Your task to perform on an android device: Open my contact list Image 0: 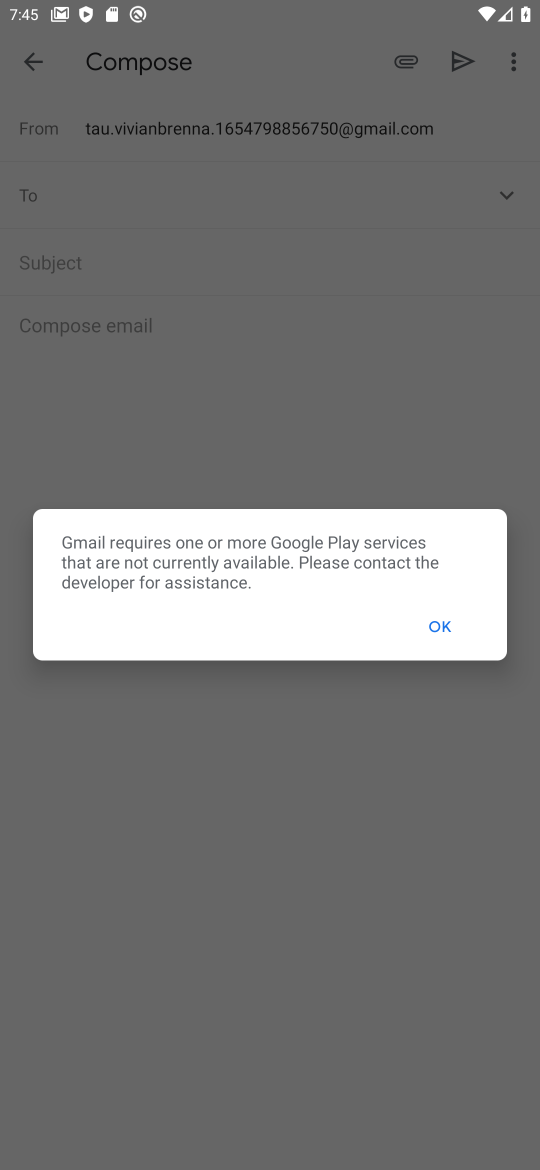
Step 0: press home button
Your task to perform on an android device: Open my contact list Image 1: 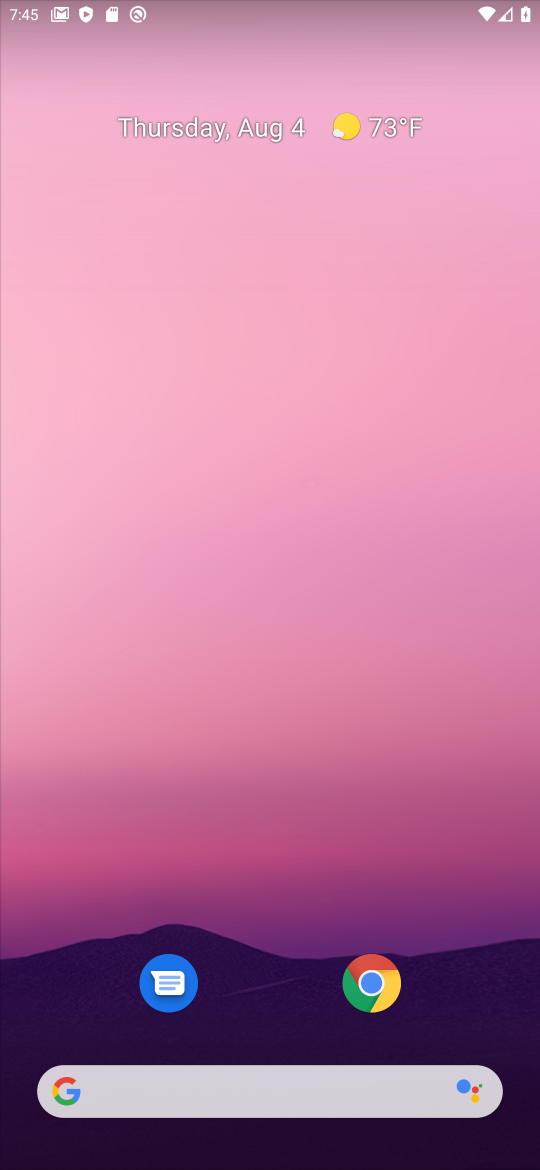
Step 1: drag from (271, 989) to (350, 119)
Your task to perform on an android device: Open my contact list Image 2: 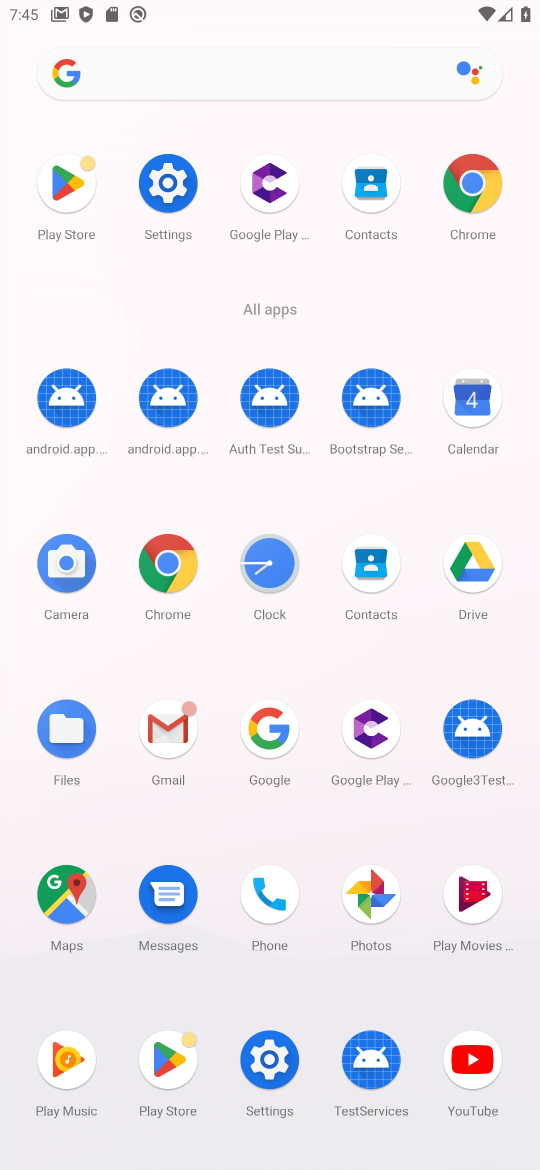
Step 2: click (369, 561)
Your task to perform on an android device: Open my contact list Image 3: 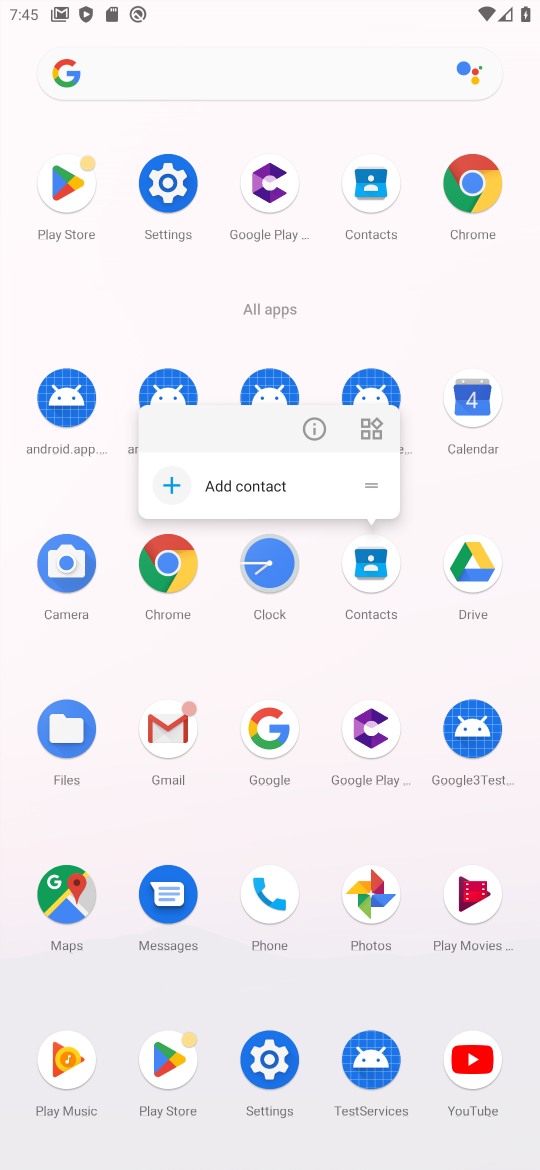
Step 3: click (372, 569)
Your task to perform on an android device: Open my contact list Image 4: 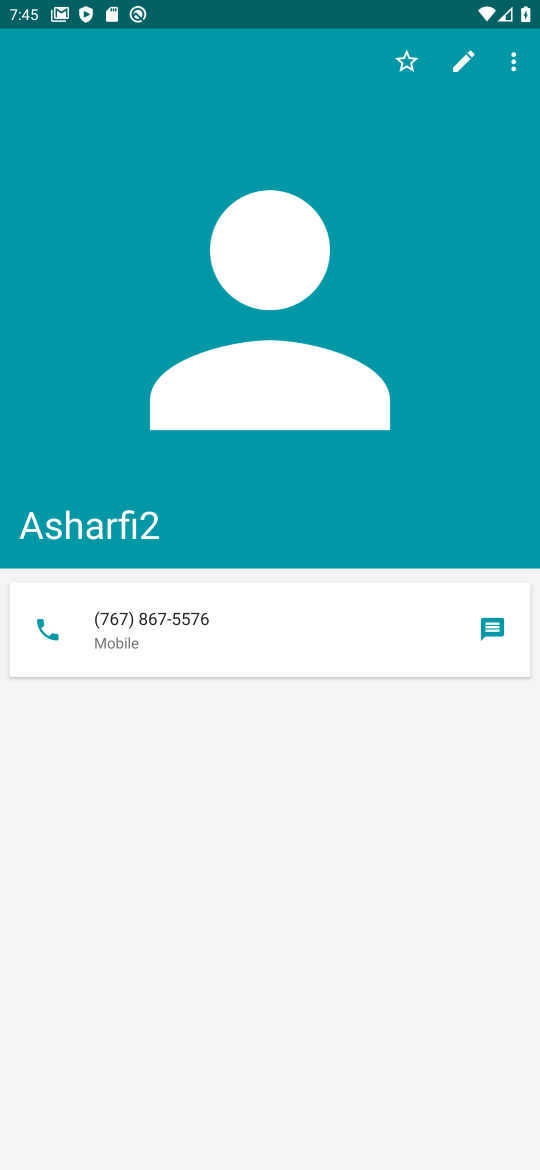
Step 4: task complete